Your task to perform on an android device: change the clock display to analog Image 0: 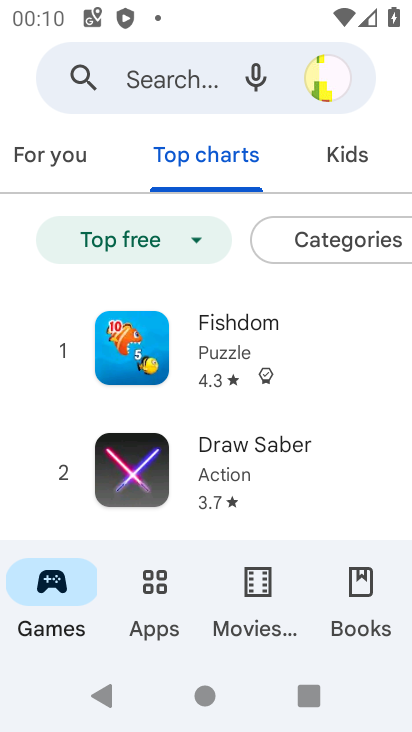
Step 0: press home button
Your task to perform on an android device: change the clock display to analog Image 1: 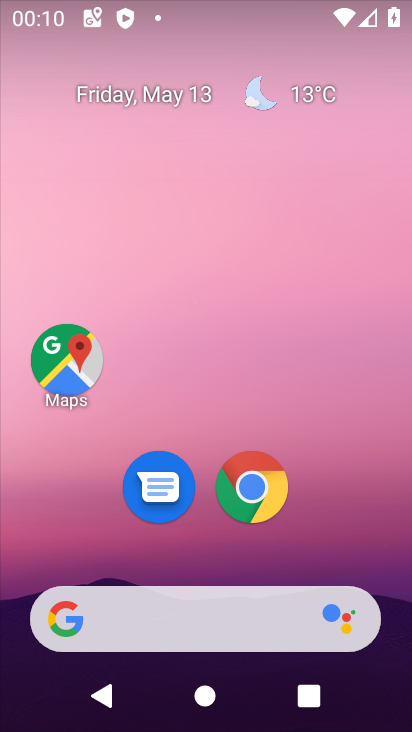
Step 1: drag from (185, 558) to (222, 24)
Your task to perform on an android device: change the clock display to analog Image 2: 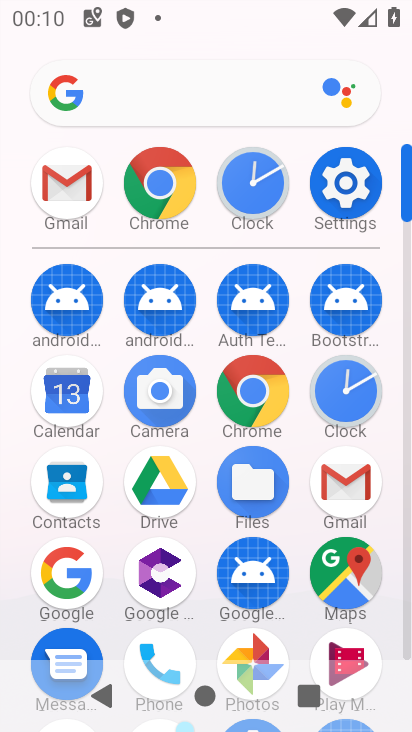
Step 2: click (351, 403)
Your task to perform on an android device: change the clock display to analog Image 3: 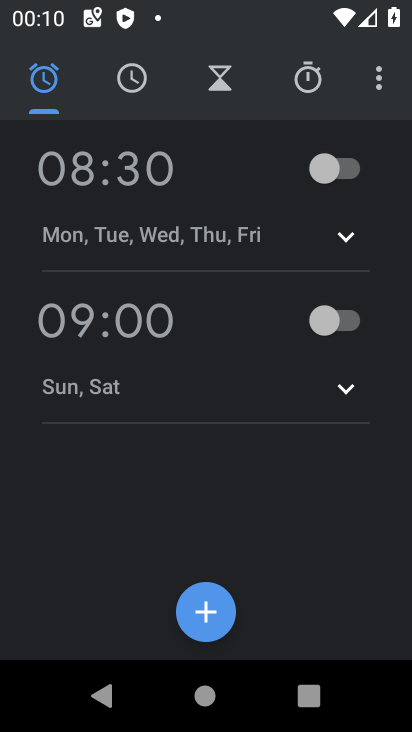
Step 3: click (388, 88)
Your task to perform on an android device: change the clock display to analog Image 4: 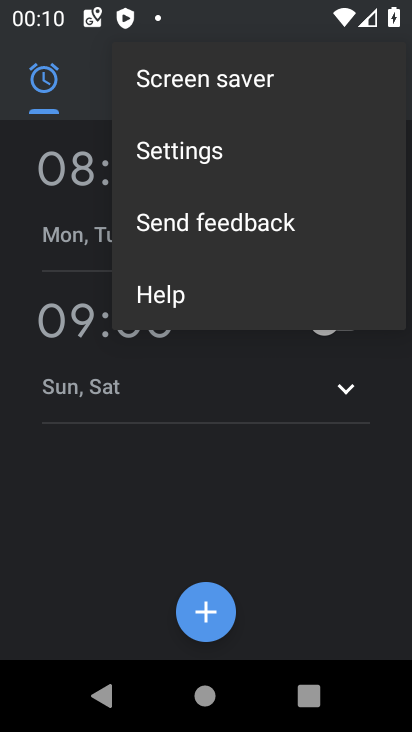
Step 4: click (177, 150)
Your task to perform on an android device: change the clock display to analog Image 5: 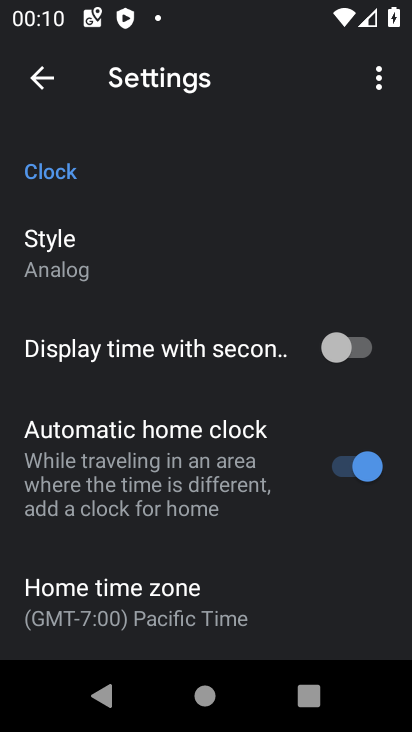
Step 5: task complete